Your task to perform on an android device: Open the Play Movies app and select the watchlist tab. Image 0: 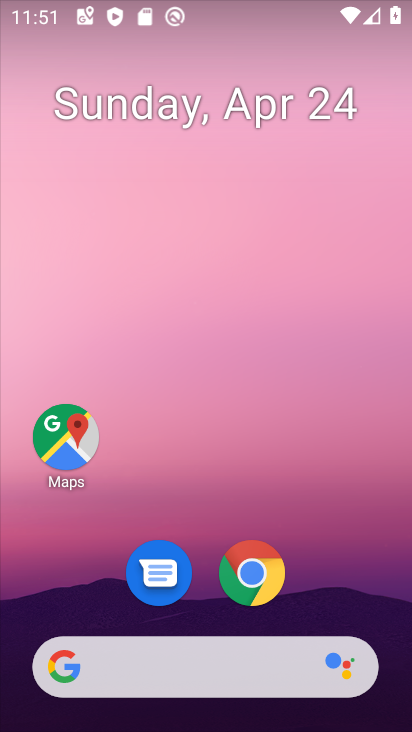
Step 0: drag from (302, 557) to (387, 83)
Your task to perform on an android device: Open the Play Movies app and select the watchlist tab. Image 1: 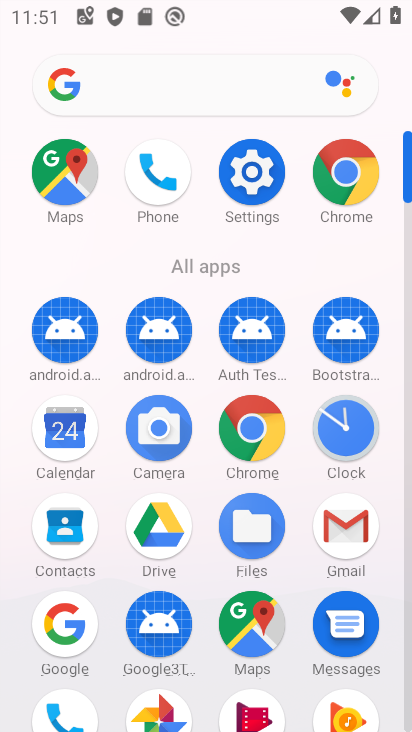
Step 1: drag from (378, 618) to (408, 314)
Your task to perform on an android device: Open the Play Movies app and select the watchlist tab. Image 2: 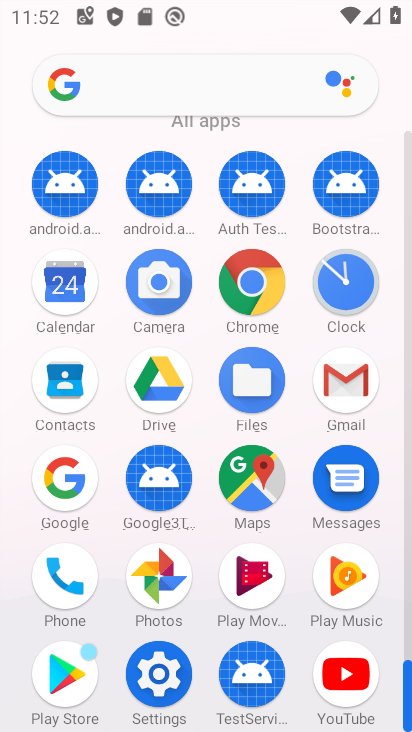
Step 2: click (237, 585)
Your task to perform on an android device: Open the Play Movies app and select the watchlist tab. Image 3: 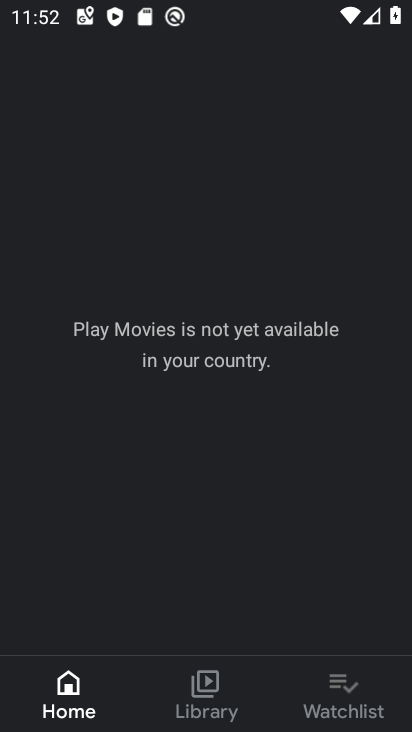
Step 3: click (323, 695)
Your task to perform on an android device: Open the Play Movies app and select the watchlist tab. Image 4: 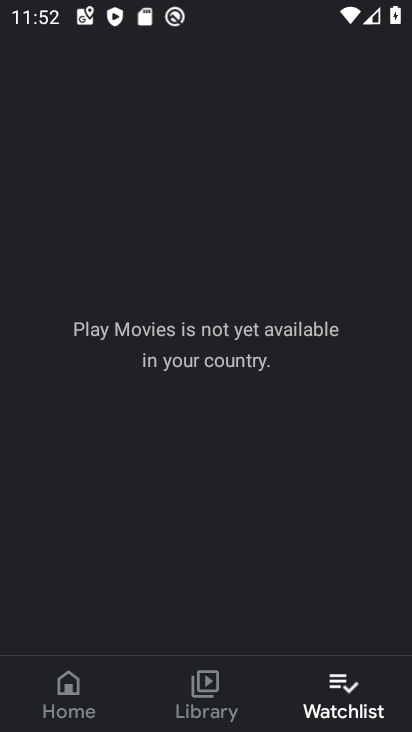
Step 4: task complete